Your task to perform on an android device: Is it going to rain tomorrow? Image 0: 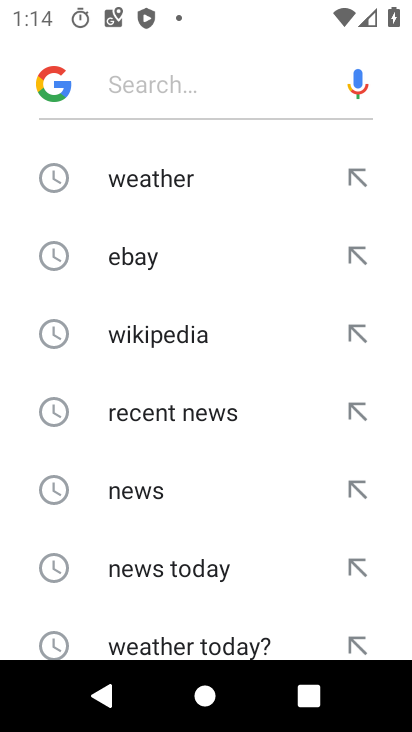
Step 0: press home button
Your task to perform on an android device: Is it going to rain tomorrow? Image 1: 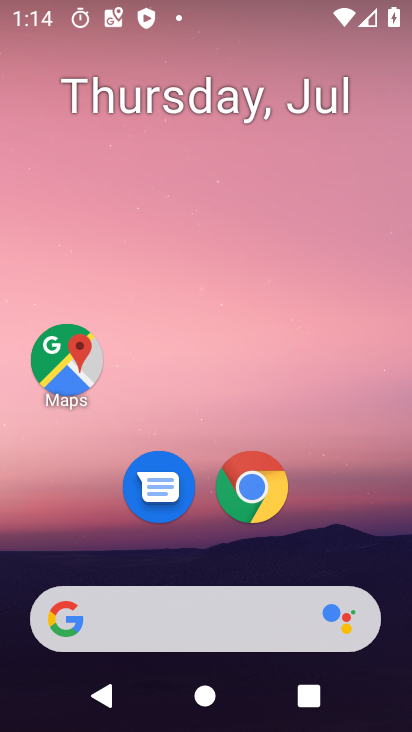
Step 1: drag from (219, 605) to (303, 177)
Your task to perform on an android device: Is it going to rain tomorrow? Image 2: 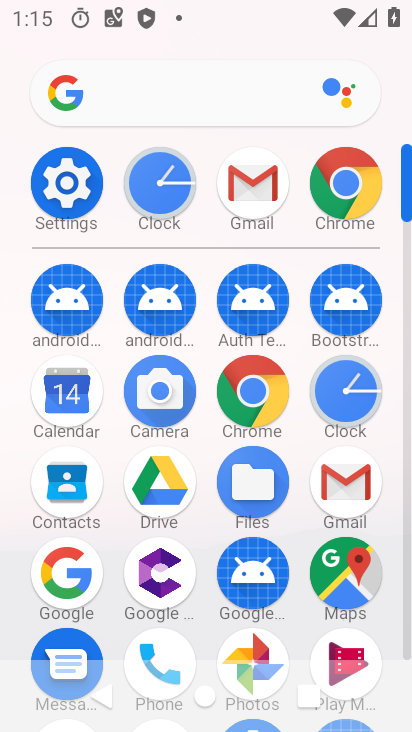
Step 2: drag from (199, 467) to (197, 305)
Your task to perform on an android device: Is it going to rain tomorrow? Image 3: 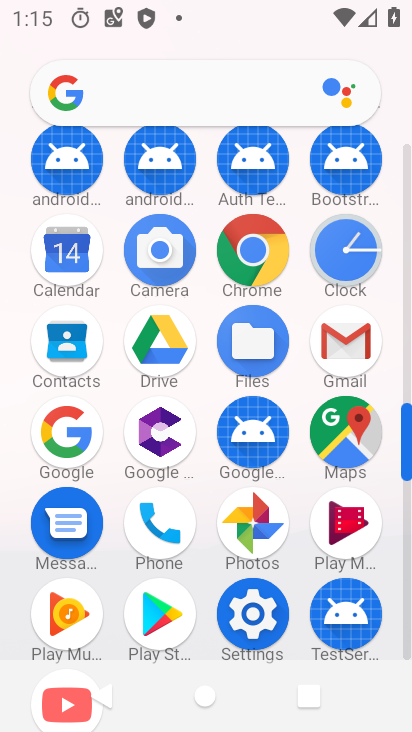
Step 3: click (75, 445)
Your task to perform on an android device: Is it going to rain tomorrow? Image 4: 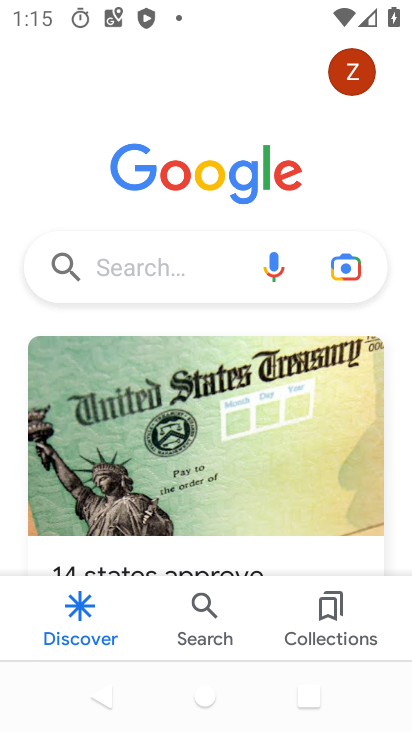
Step 4: click (164, 277)
Your task to perform on an android device: Is it going to rain tomorrow? Image 5: 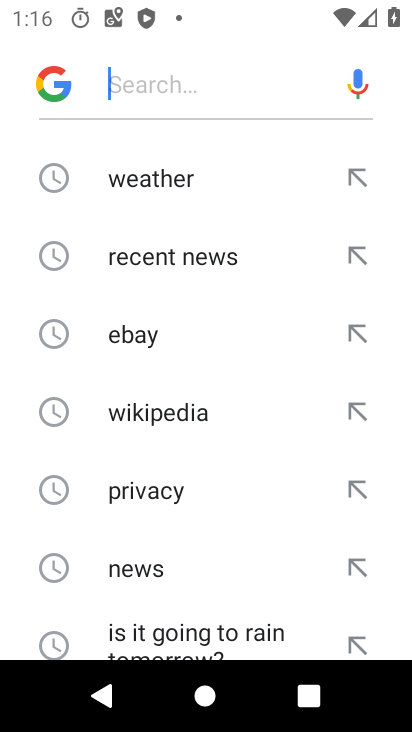
Step 5: click (226, 186)
Your task to perform on an android device: Is it going to rain tomorrow? Image 6: 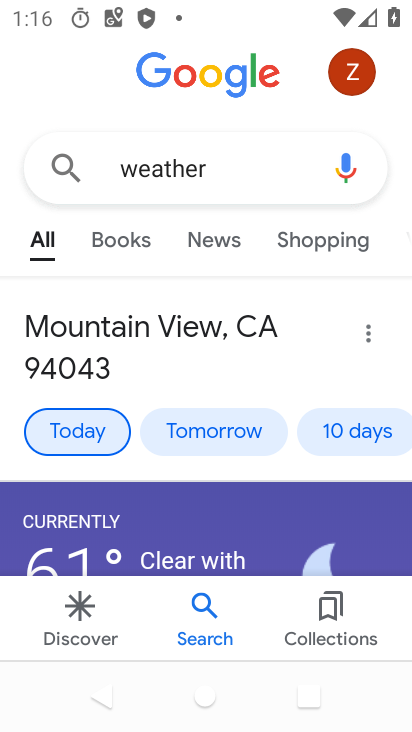
Step 6: click (209, 434)
Your task to perform on an android device: Is it going to rain tomorrow? Image 7: 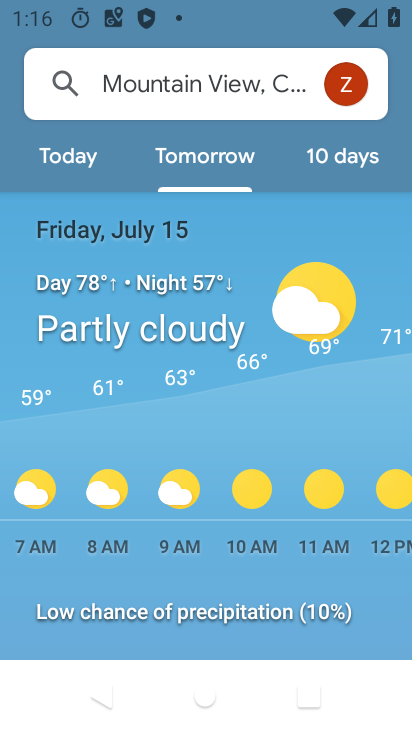
Step 7: task complete